Your task to perform on an android device: Search for Italian restaurants on Maps Image 0: 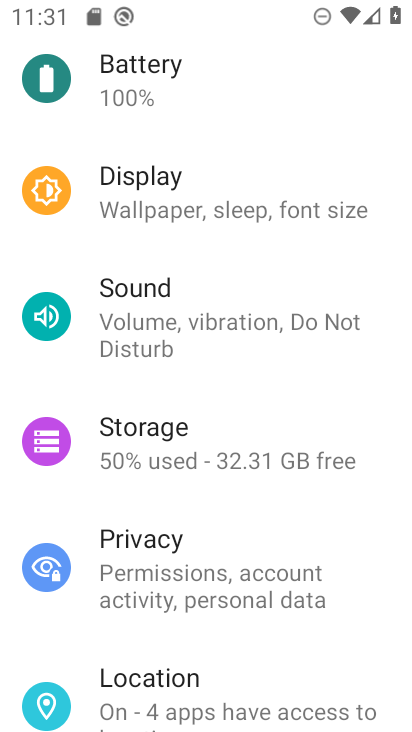
Step 0: press home button
Your task to perform on an android device: Search for Italian restaurants on Maps Image 1: 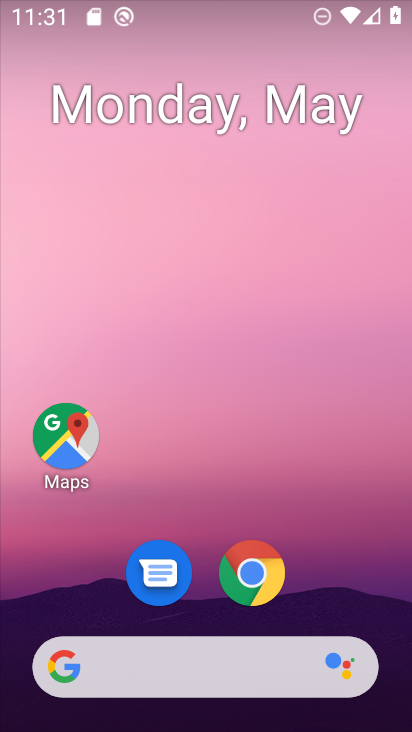
Step 1: click (73, 438)
Your task to perform on an android device: Search for Italian restaurants on Maps Image 2: 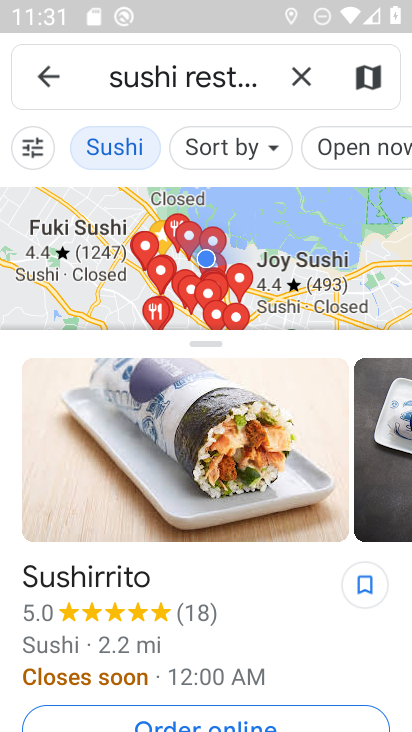
Step 2: click (292, 75)
Your task to perform on an android device: Search for Italian restaurants on Maps Image 3: 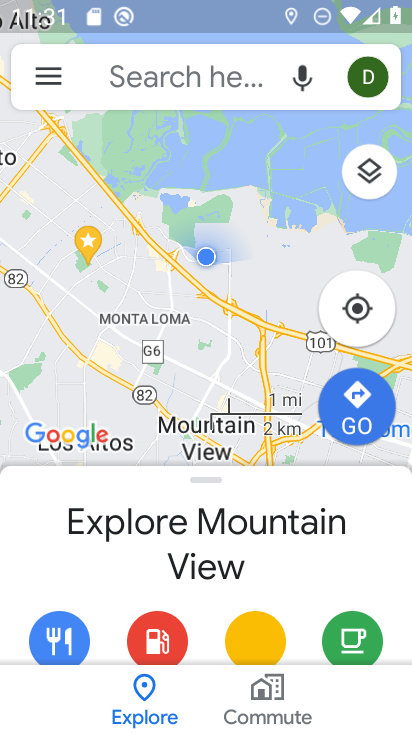
Step 3: click (210, 78)
Your task to perform on an android device: Search for Italian restaurants on Maps Image 4: 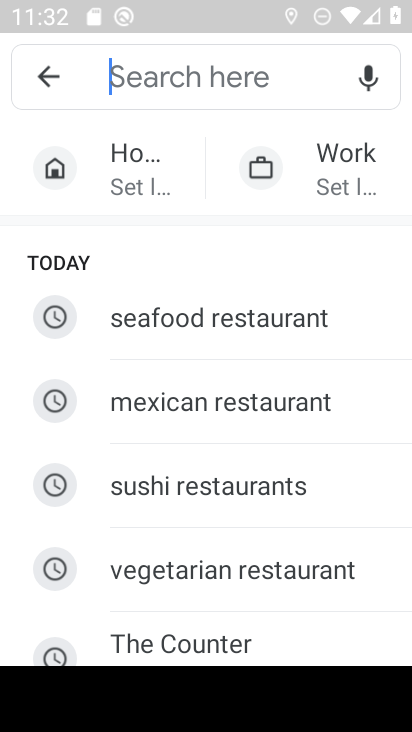
Step 4: drag from (239, 537) to (270, 277)
Your task to perform on an android device: Search for Italian restaurants on Maps Image 5: 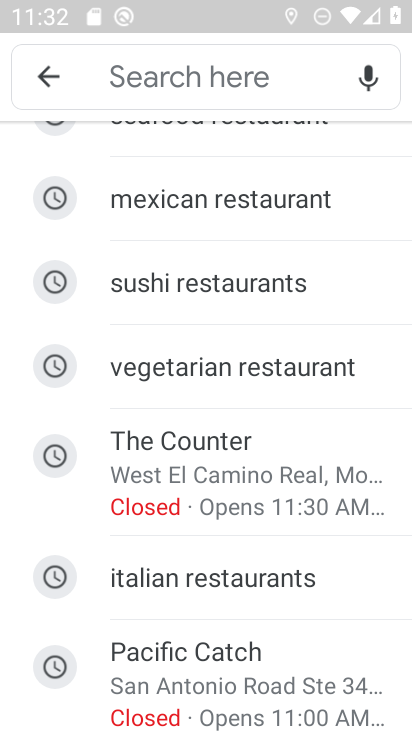
Step 5: click (227, 572)
Your task to perform on an android device: Search for Italian restaurants on Maps Image 6: 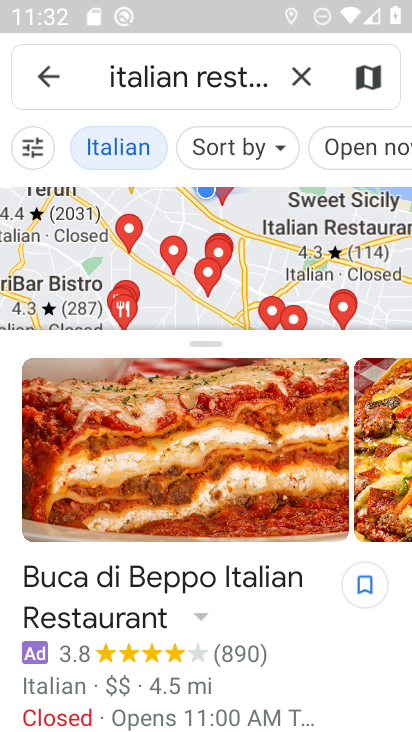
Step 6: task complete